Your task to perform on an android device: Show me popular games on the Play Store Image 0: 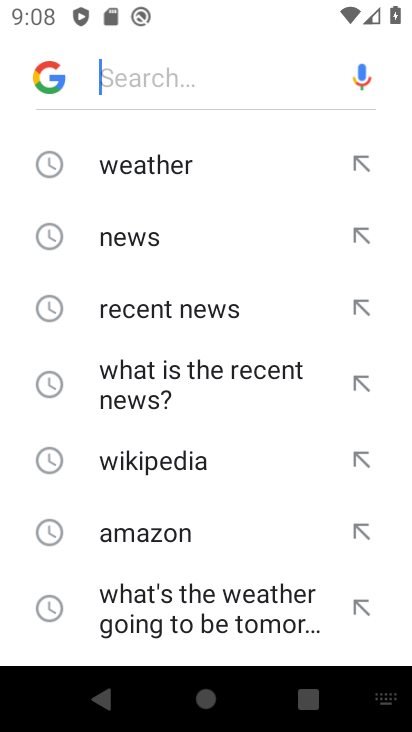
Step 0: press home button
Your task to perform on an android device: Show me popular games on the Play Store Image 1: 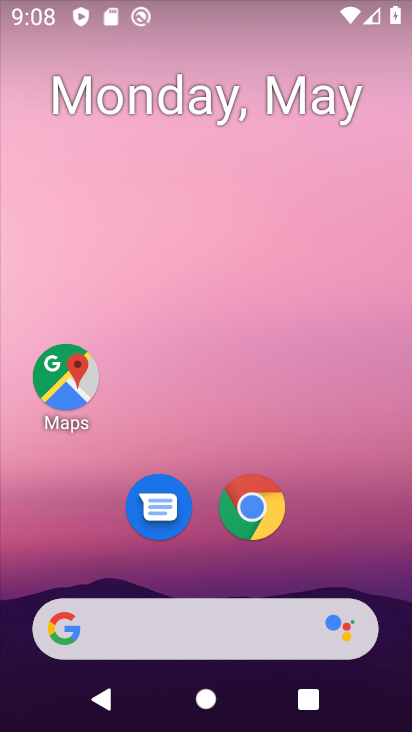
Step 1: drag from (240, 635) to (272, 360)
Your task to perform on an android device: Show me popular games on the Play Store Image 2: 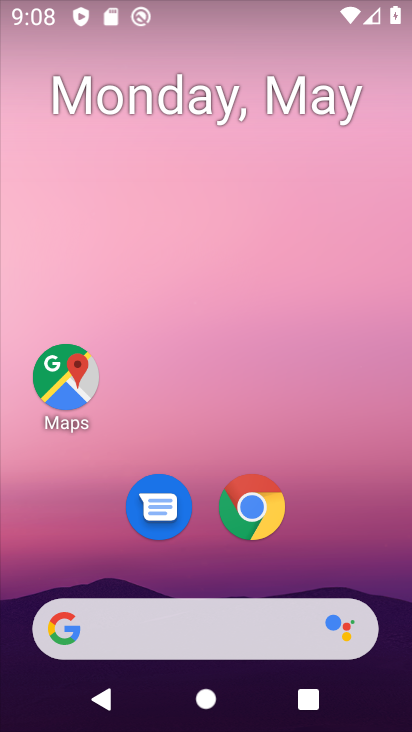
Step 2: drag from (243, 650) to (240, 0)
Your task to perform on an android device: Show me popular games on the Play Store Image 3: 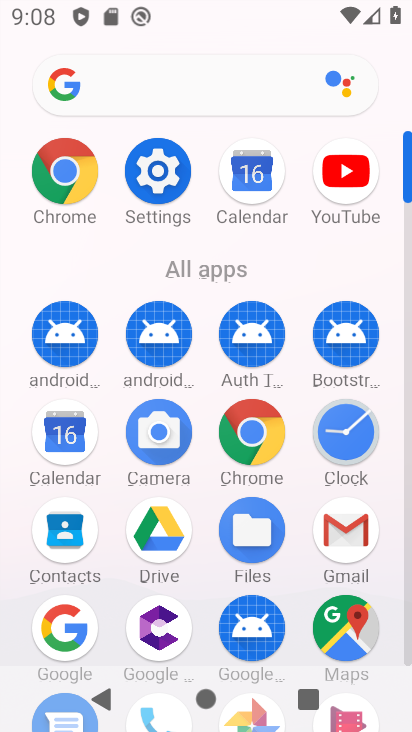
Step 3: drag from (277, 578) to (255, 85)
Your task to perform on an android device: Show me popular games on the Play Store Image 4: 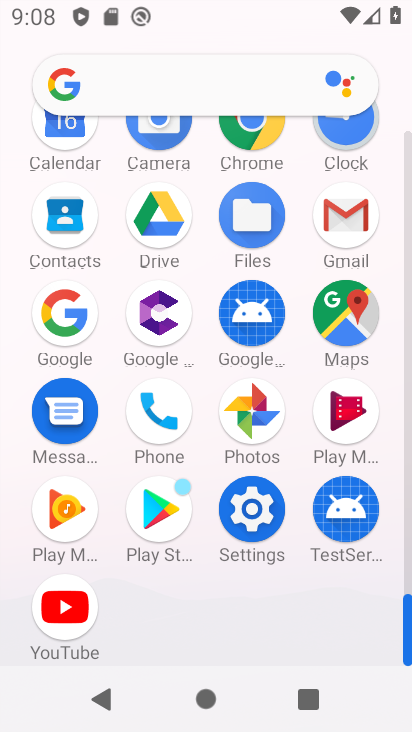
Step 4: click (153, 513)
Your task to perform on an android device: Show me popular games on the Play Store Image 5: 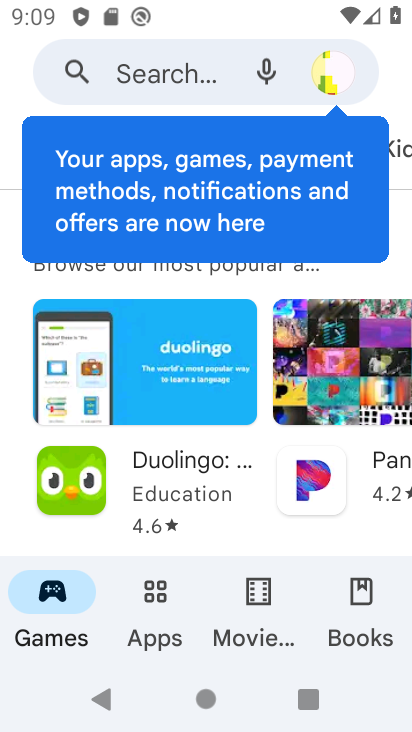
Step 5: drag from (245, 503) to (270, 126)
Your task to perform on an android device: Show me popular games on the Play Store Image 6: 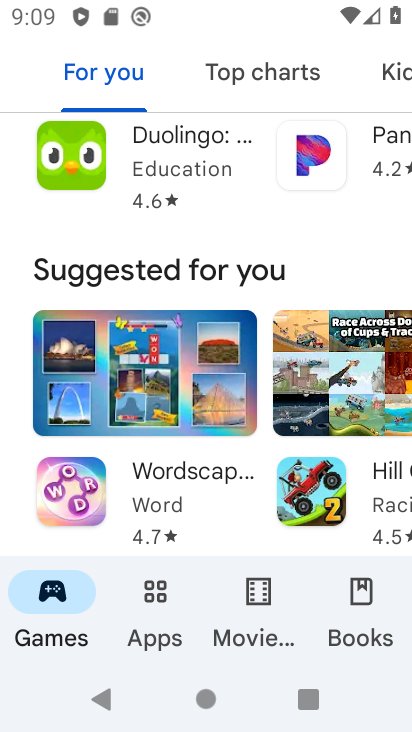
Step 6: drag from (243, 549) to (227, 202)
Your task to perform on an android device: Show me popular games on the Play Store Image 7: 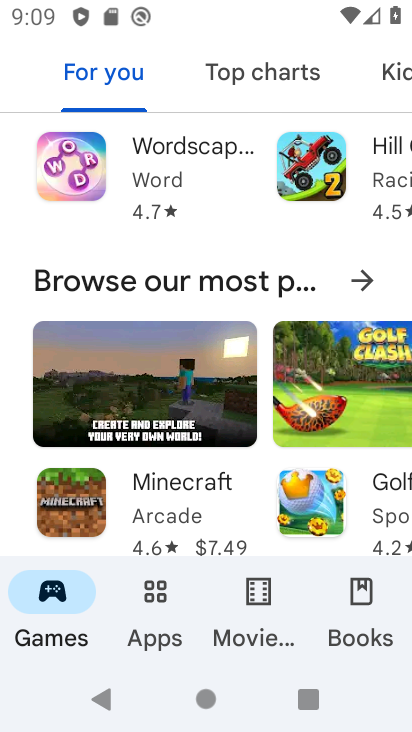
Step 7: click (350, 273)
Your task to perform on an android device: Show me popular games on the Play Store Image 8: 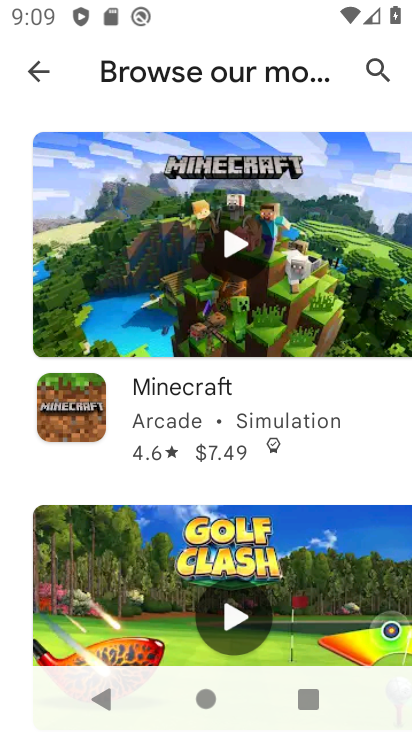
Step 8: task complete